Your task to perform on an android device: open app "Truecaller" (install if not already installed) and go to login screen Image 0: 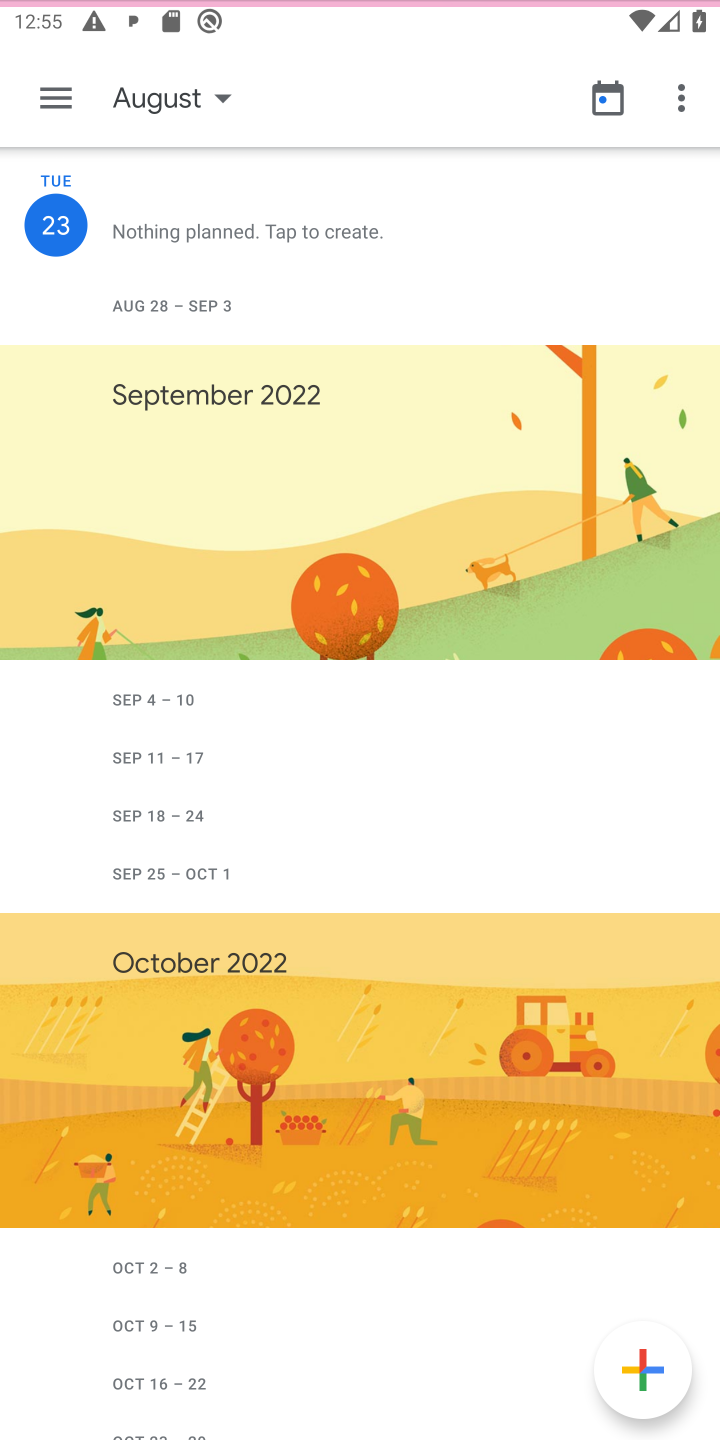
Step 0: click (564, 94)
Your task to perform on an android device: open app "Truecaller" (install if not already installed) and go to login screen Image 1: 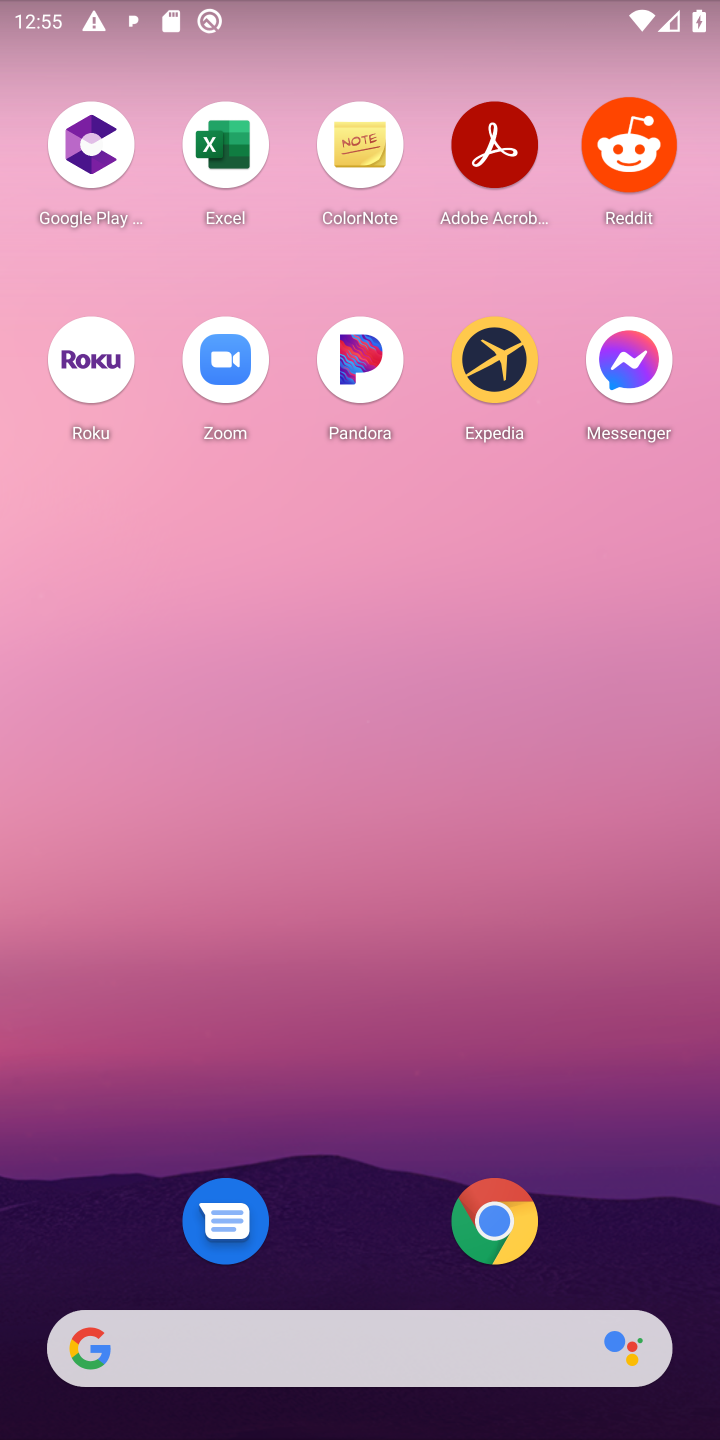
Step 1: drag from (452, 1225) to (494, 61)
Your task to perform on an android device: open app "Truecaller" (install if not already installed) and go to login screen Image 2: 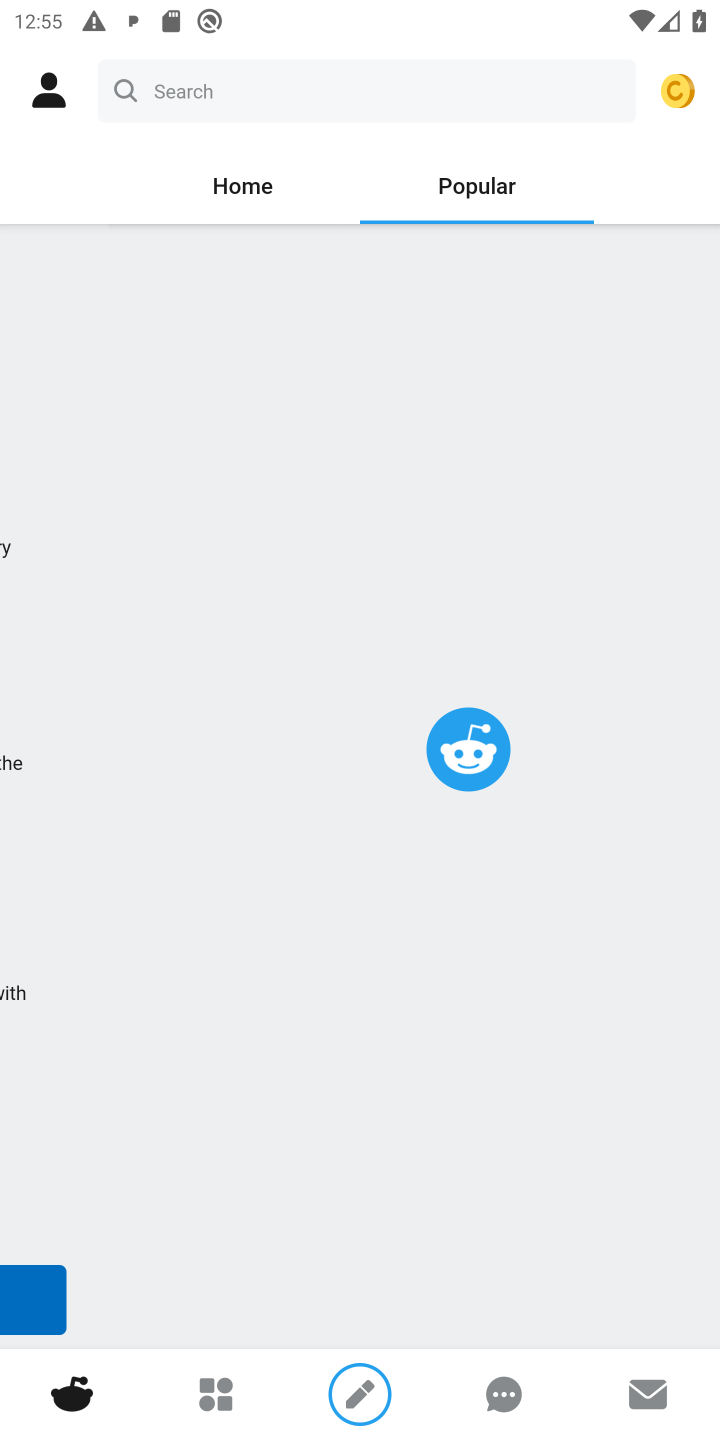
Step 2: press back button
Your task to perform on an android device: open app "Truecaller" (install if not already installed) and go to login screen Image 3: 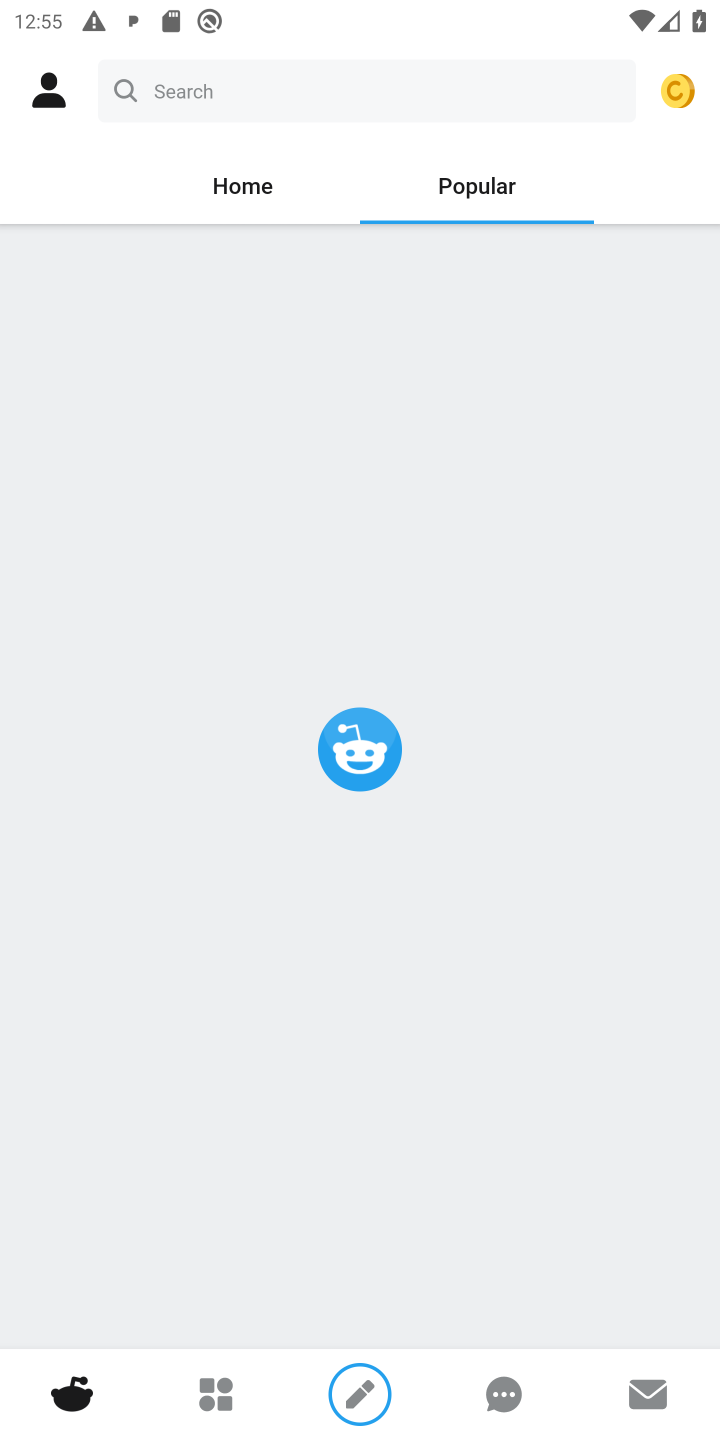
Step 3: press back button
Your task to perform on an android device: open app "Truecaller" (install if not already installed) and go to login screen Image 4: 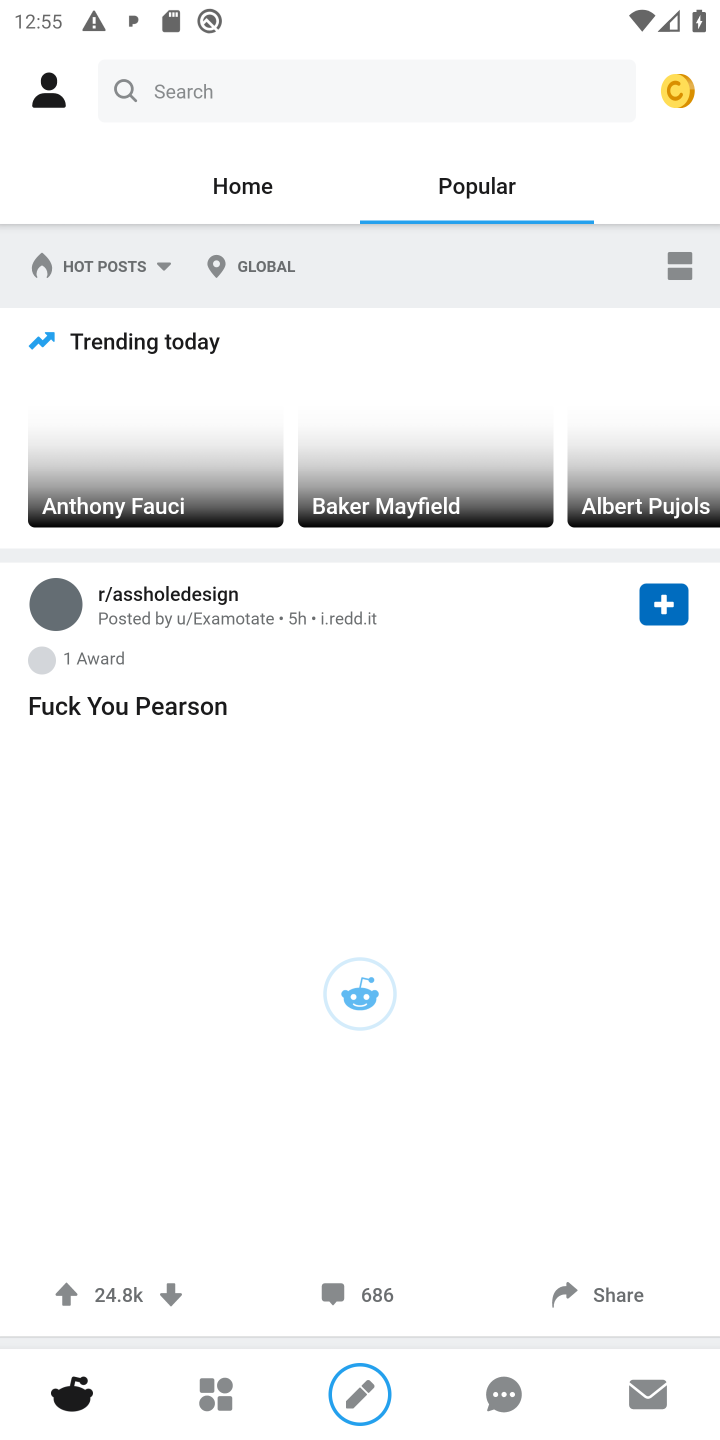
Step 4: press back button
Your task to perform on an android device: open app "Truecaller" (install if not already installed) and go to login screen Image 5: 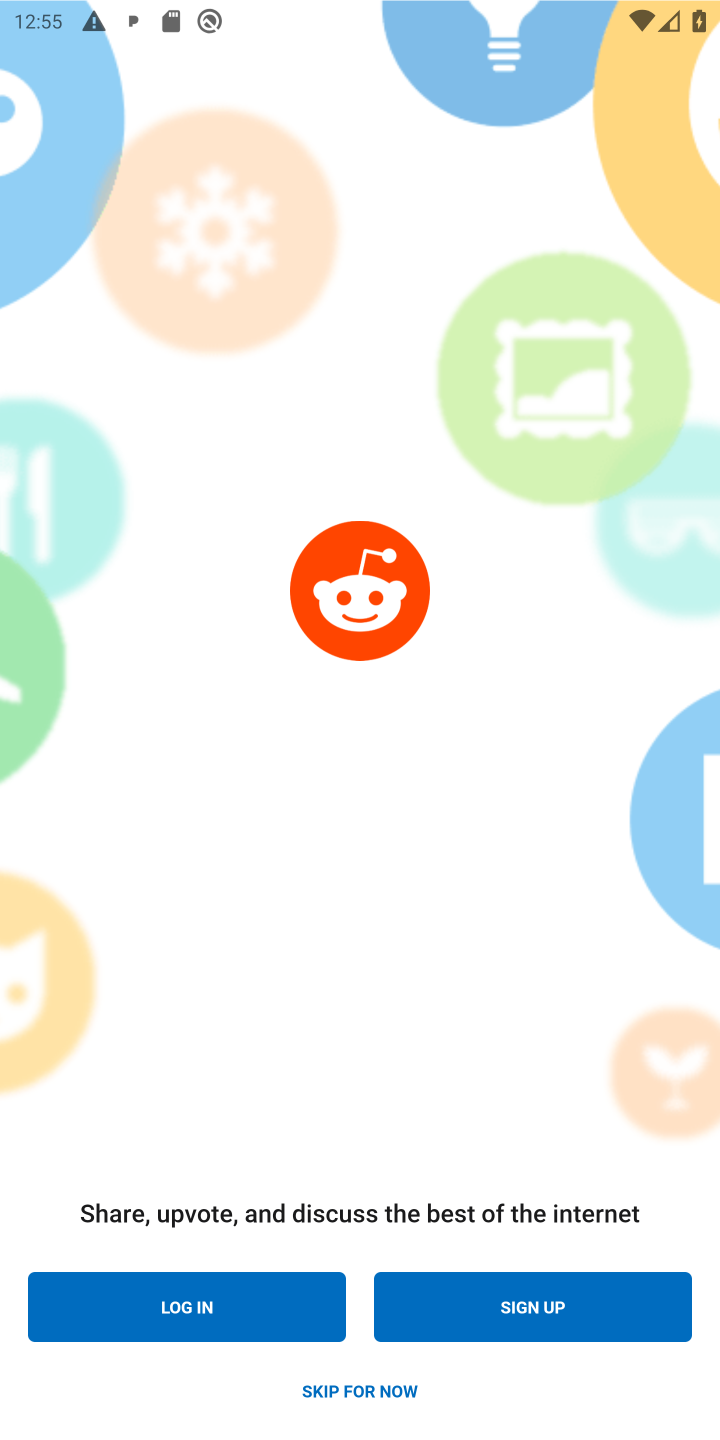
Step 5: press home button
Your task to perform on an android device: open app "Truecaller" (install if not already installed) and go to login screen Image 6: 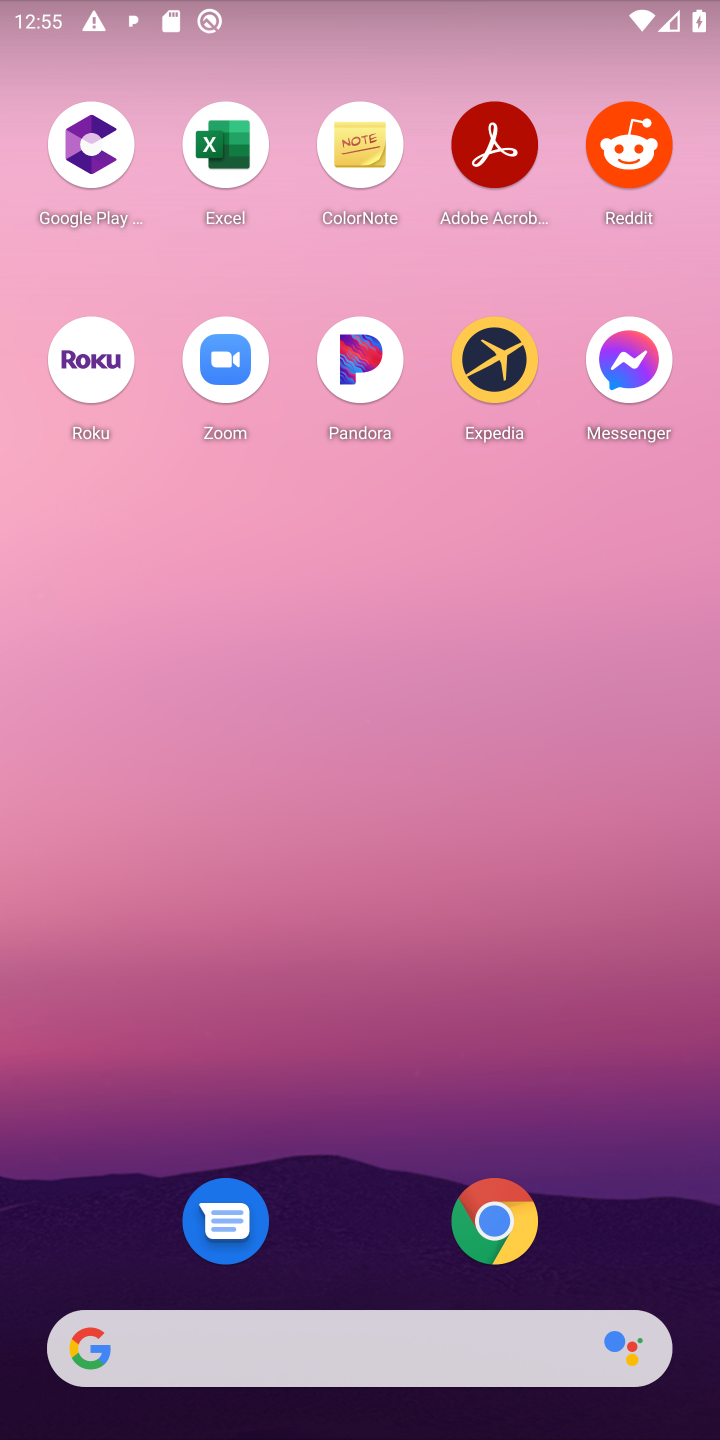
Step 6: drag from (361, 1034) to (528, 39)
Your task to perform on an android device: open app "Truecaller" (install if not already installed) and go to login screen Image 7: 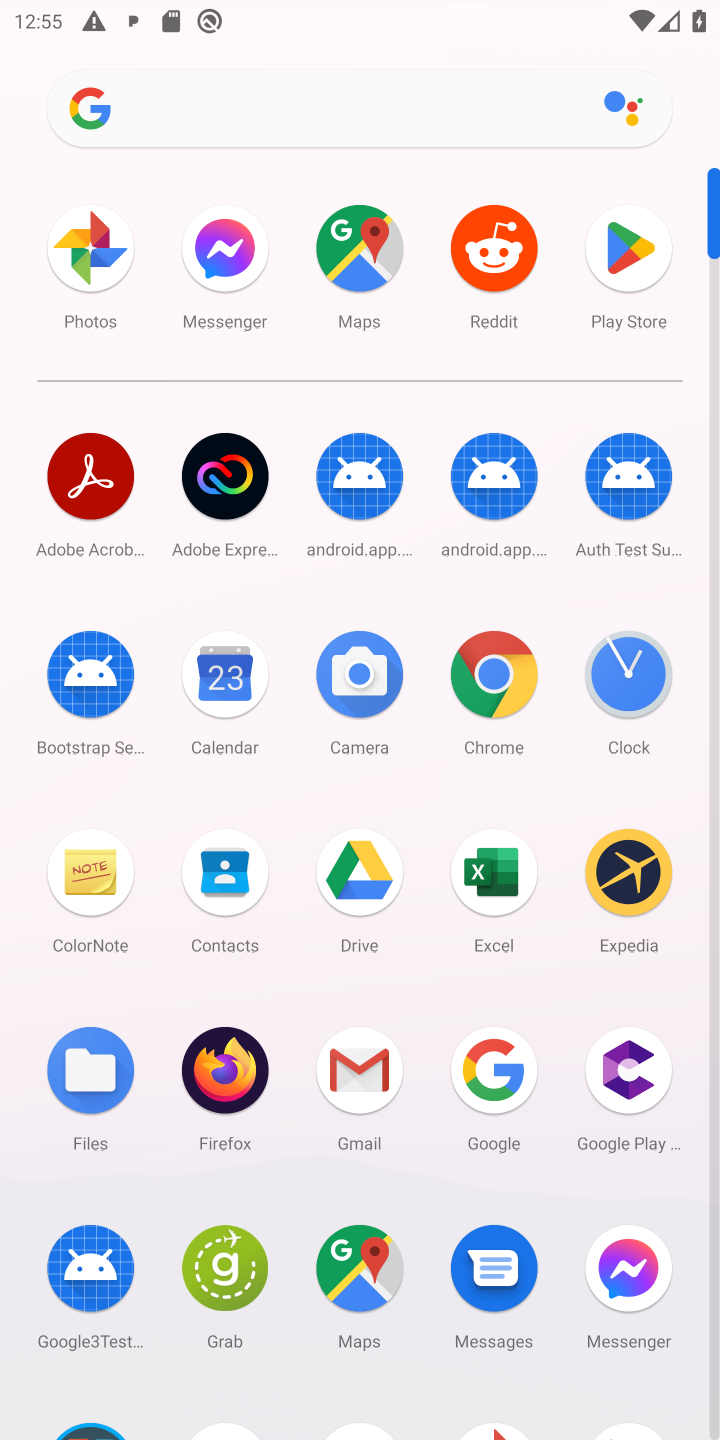
Step 7: click (618, 258)
Your task to perform on an android device: open app "Truecaller" (install if not already installed) and go to login screen Image 8: 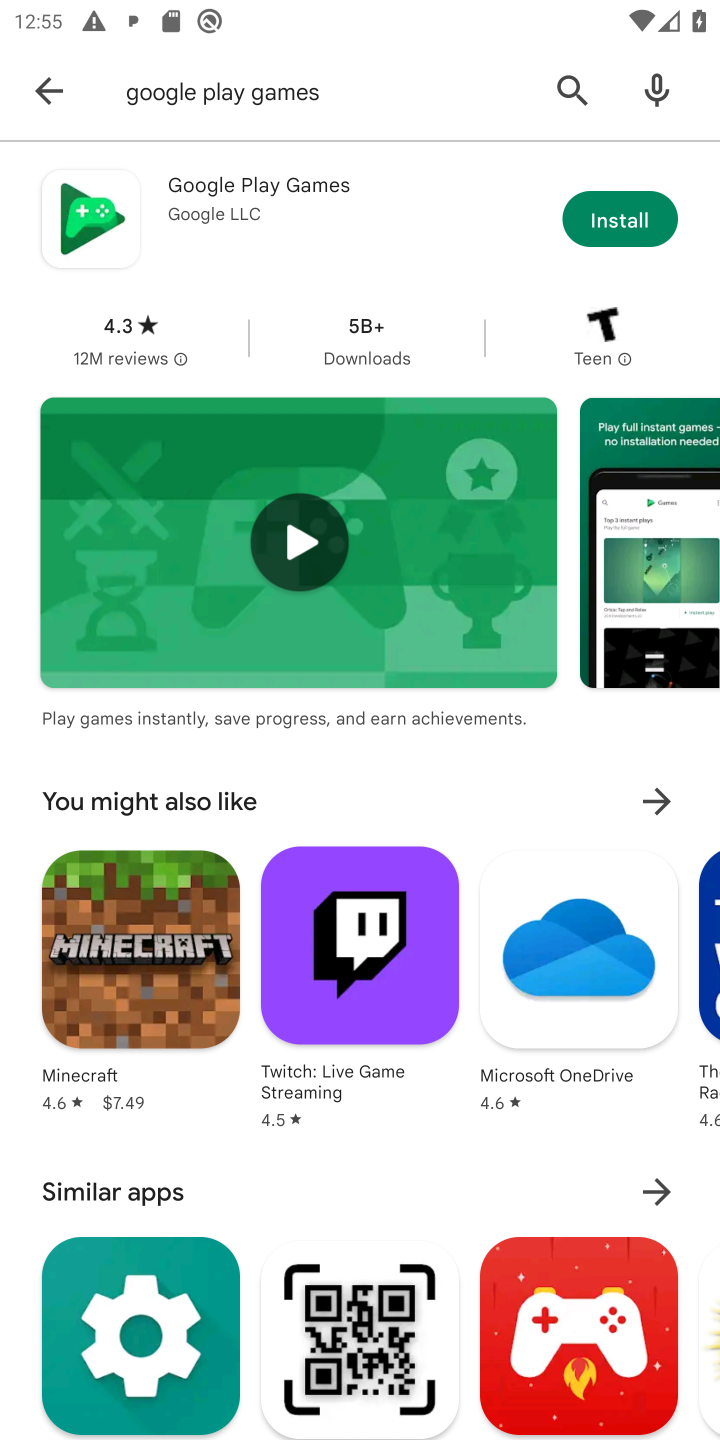
Step 8: click (579, 66)
Your task to perform on an android device: open app "Truecaller" (install if not already installed) and go to login screen Image 9: 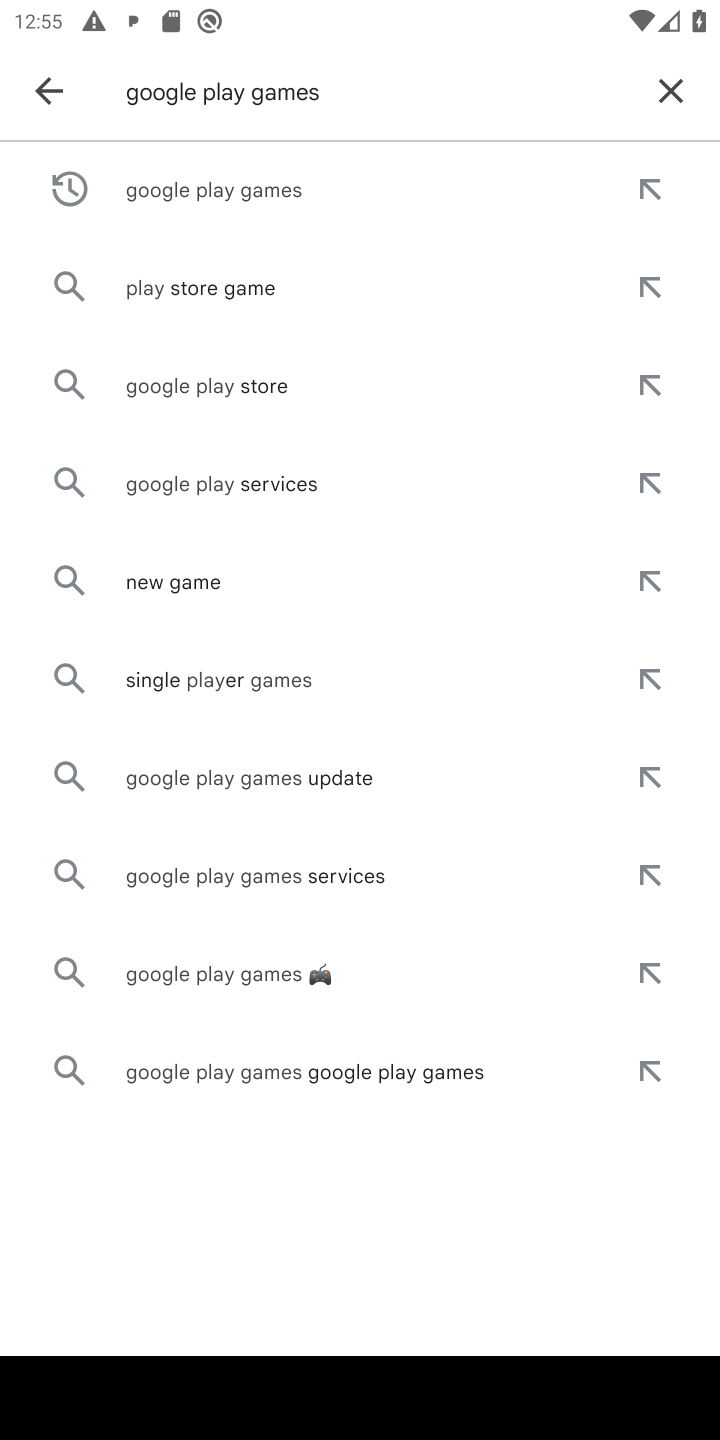
Step 9: click (671, 99)
Your task to perform on an android device: open app "Truecaller" (install if not already installed) and go to login screen Image 10: 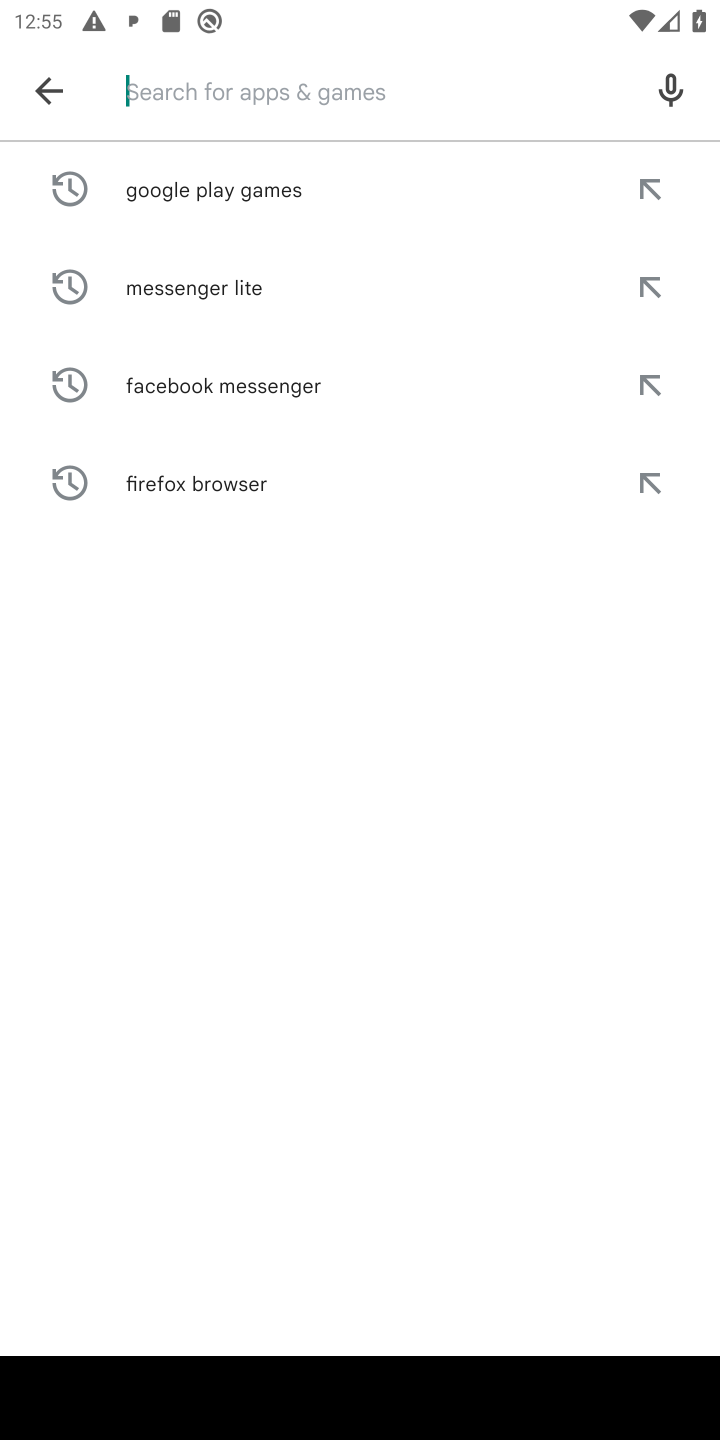
Step 10: click (185, 79)
Your task to perform on an android device: open app "Truecaller" (install if not already installed) and go to login screen Image 11: 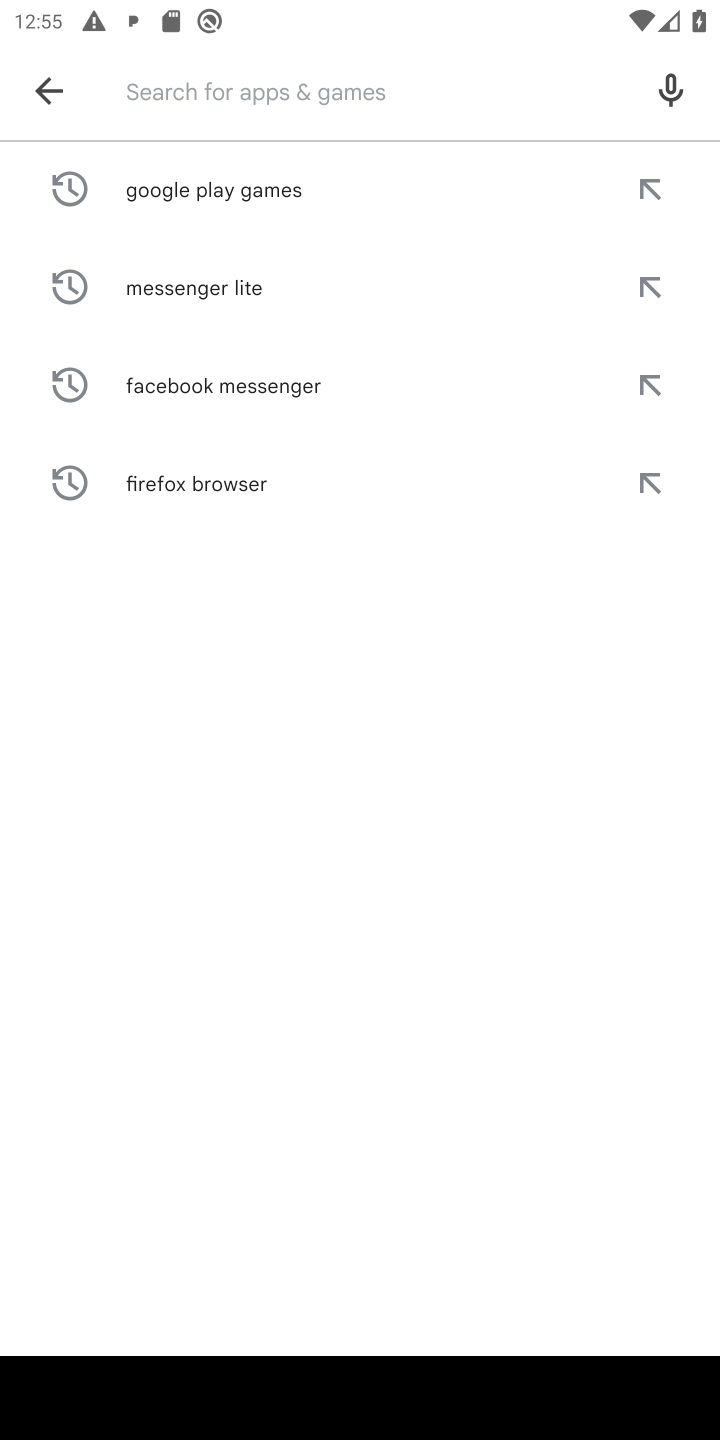
Step 11: type "Truecaller"
Your task to perform on an android device: open app "Truecaller" (install if not already installed) and go to login screen Image 12: 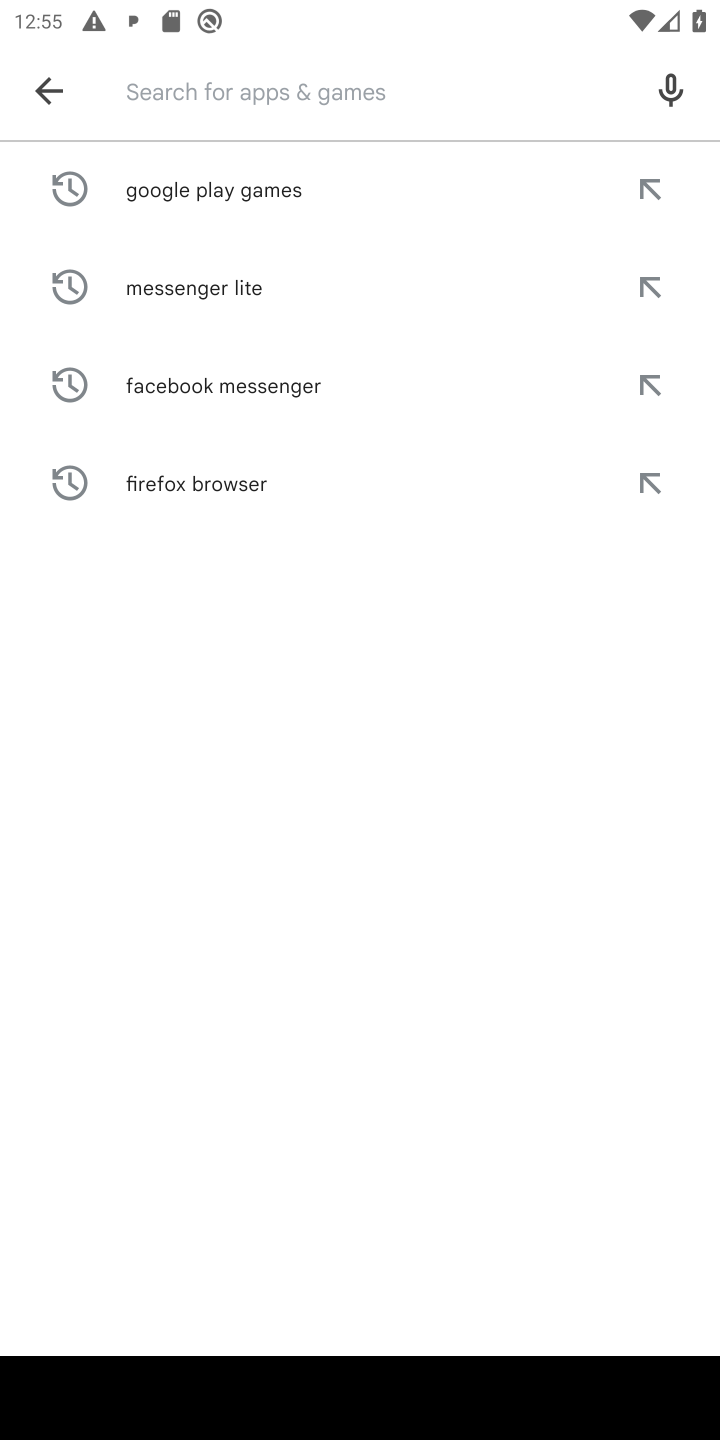
Step 12: click (398, 922)
Your task to perform on an android device: open app "Truecaller" (install if not already installed) and go to login screen Image 13: 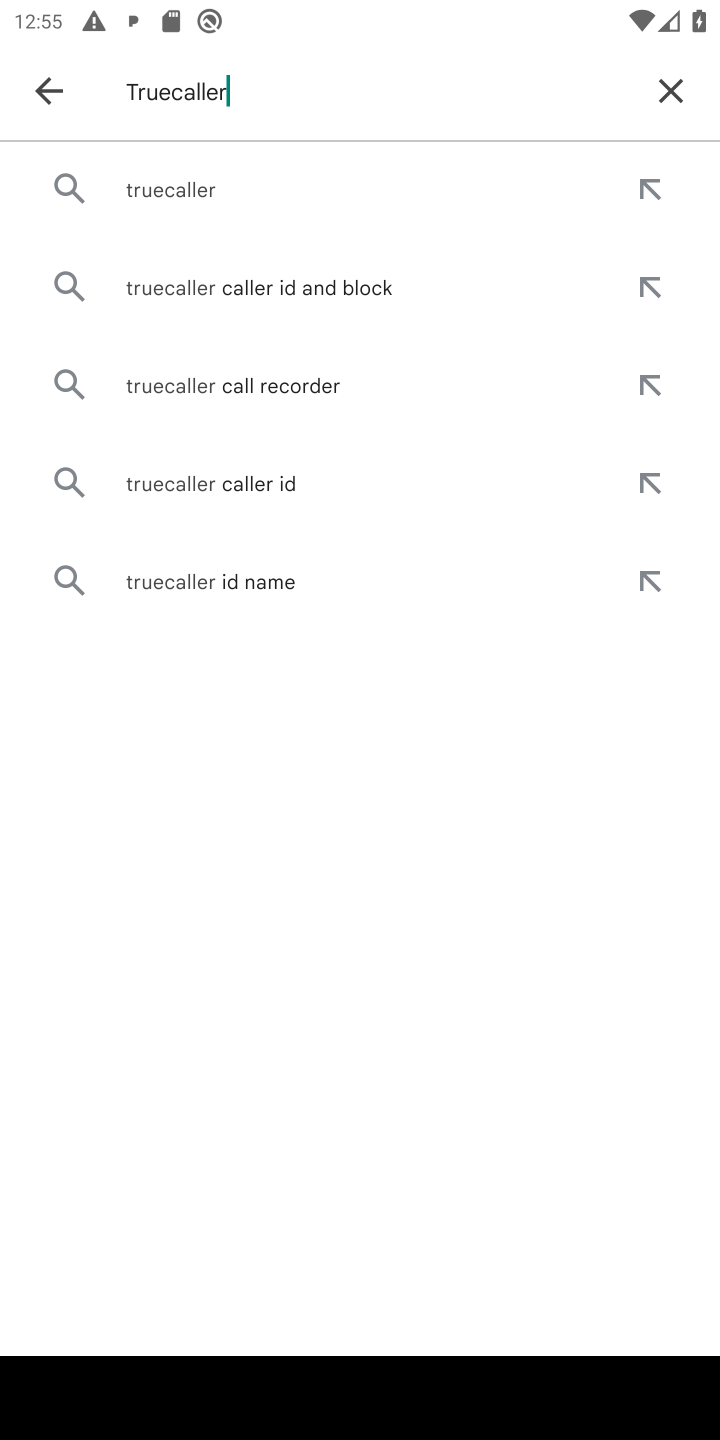
Step 13: click (214, 205)
Your task to perform on an android device: open app "Truecaller" (install if not already installed) and go to login screen Image 14: 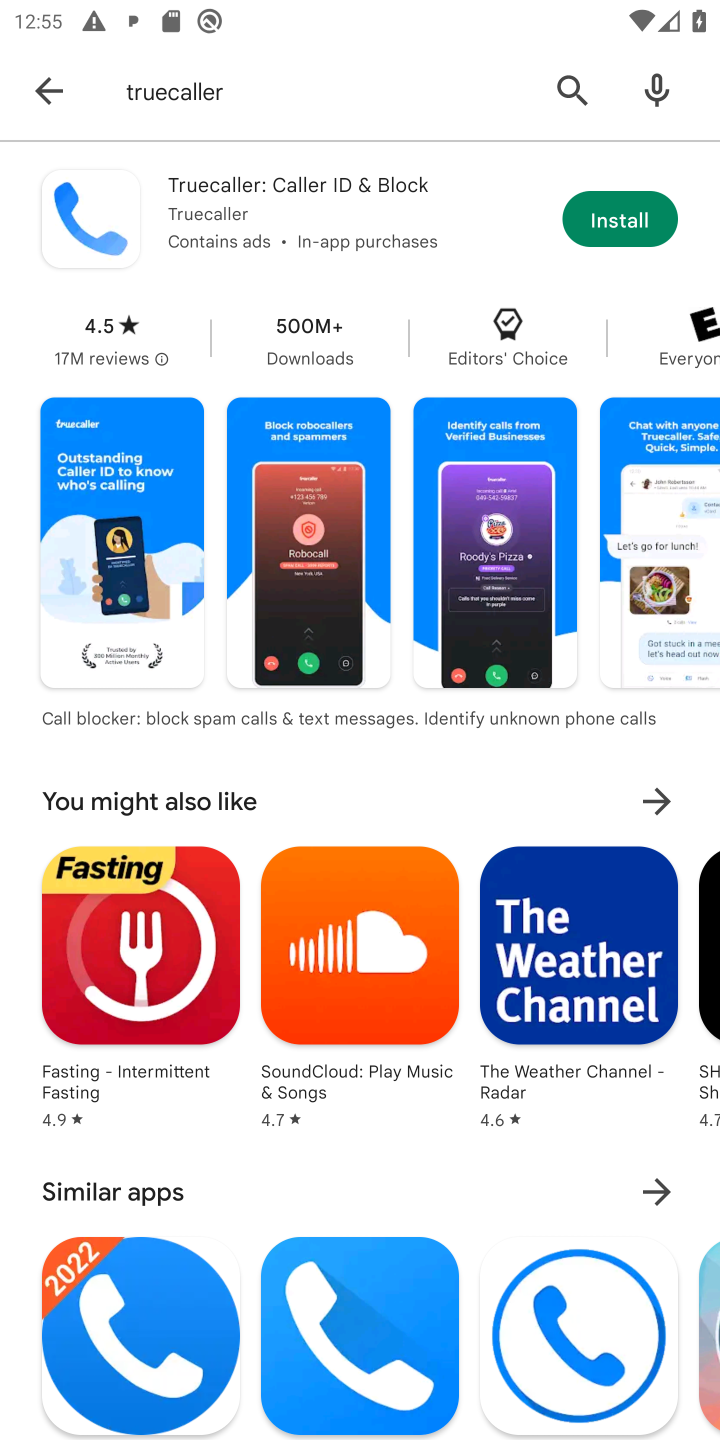
Step 14: click (600, 231)
Your task to perform on an android device: open app "Truecaller" (install if not already installed) and go to login screen Image 15: 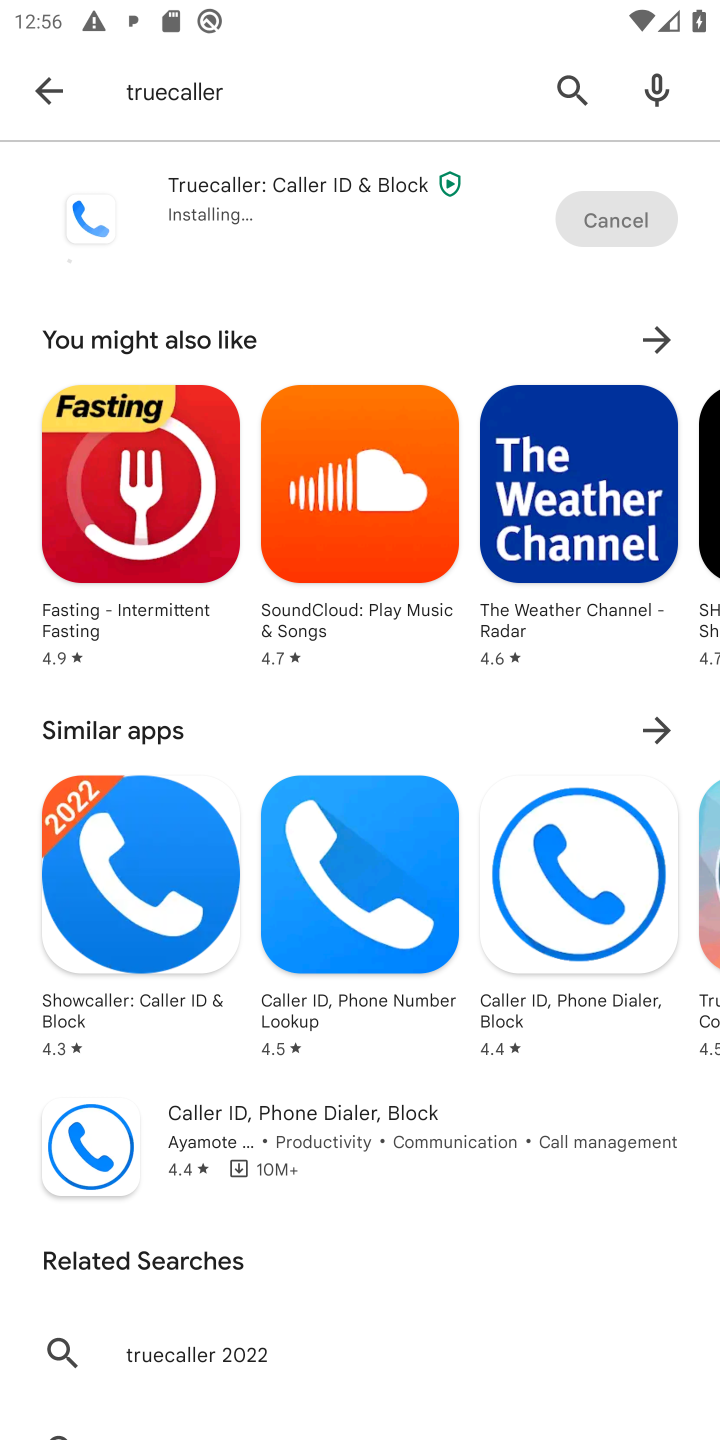
Step 15: press back button
Your task to perform on an android device: open app "Truecaller" (install if not already installed) and go to login screen Image 16: 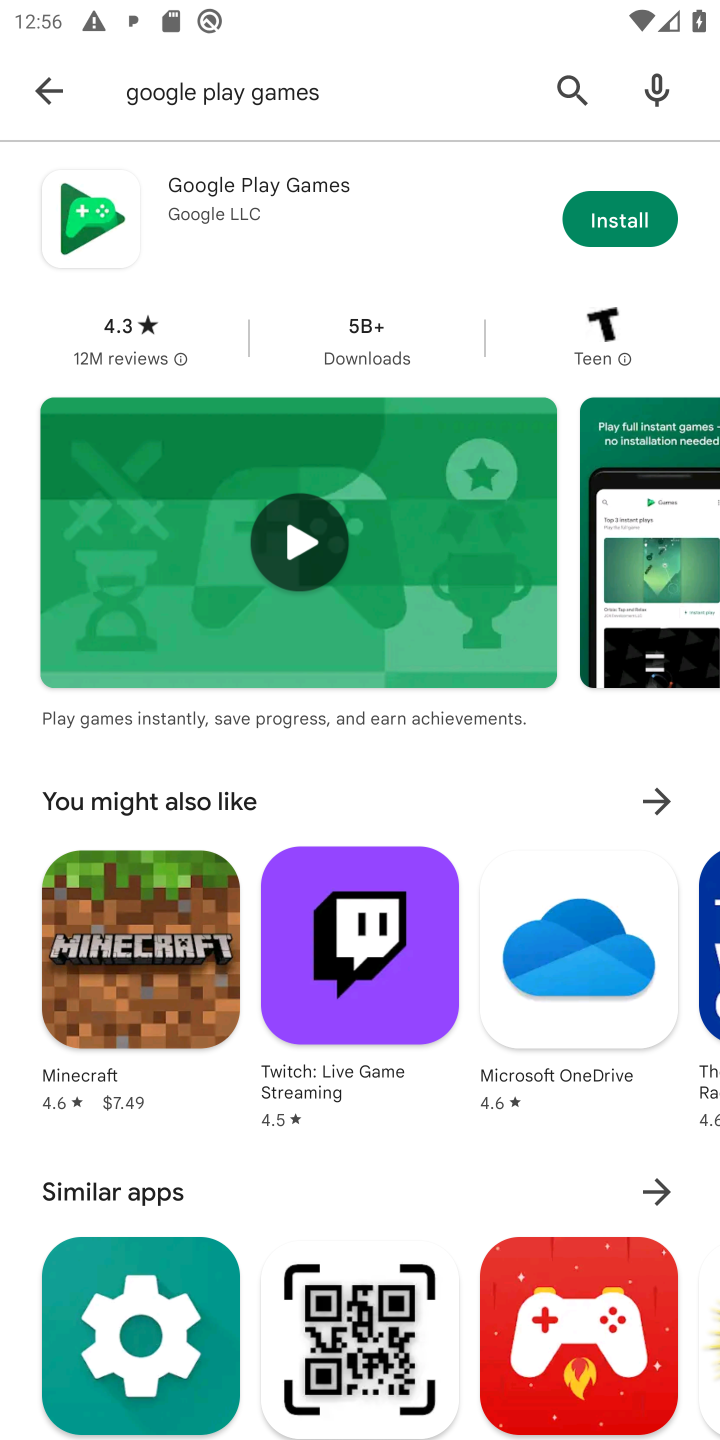
Step 16: click (545, 88)
Your task to perform on an android device: open app "Truecaller" (install if not already installed) and go to login screen Image 17: 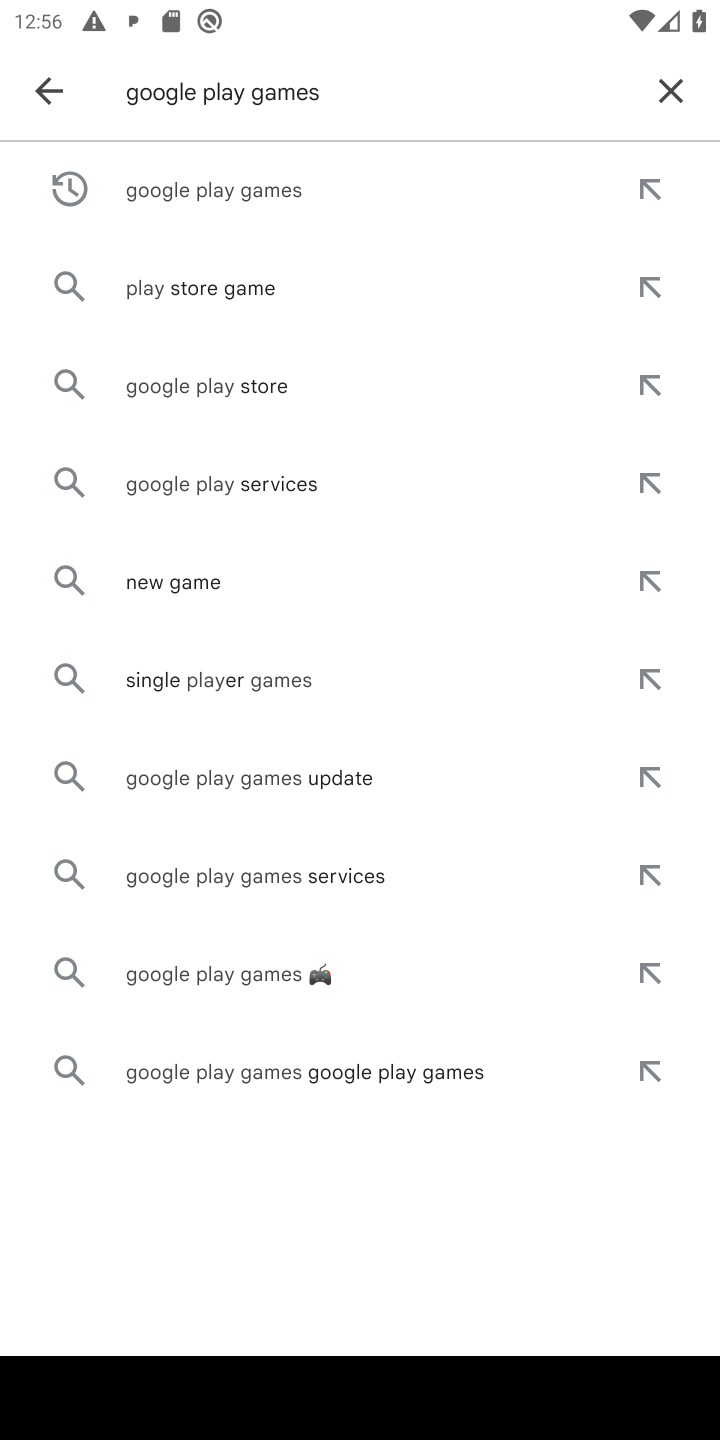
Step 17: click (669, 82)
Your task to perform on an android device: open app "Truecaller" (install if not already installed) and go to login screen Image 18: 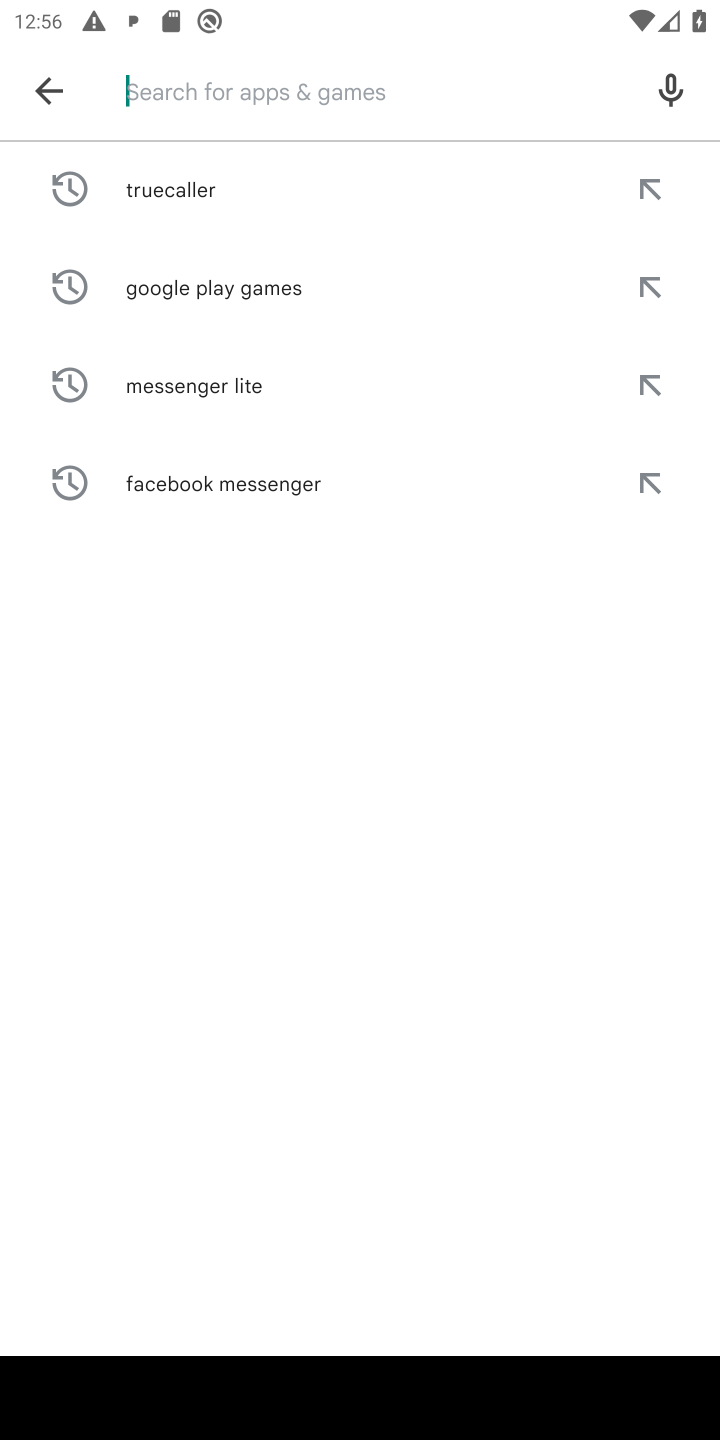
Step 18: click (153, 191)
Your task to perform on an android device: open app "Truecaller" (install if not already installed) and go to login screen Image 19: 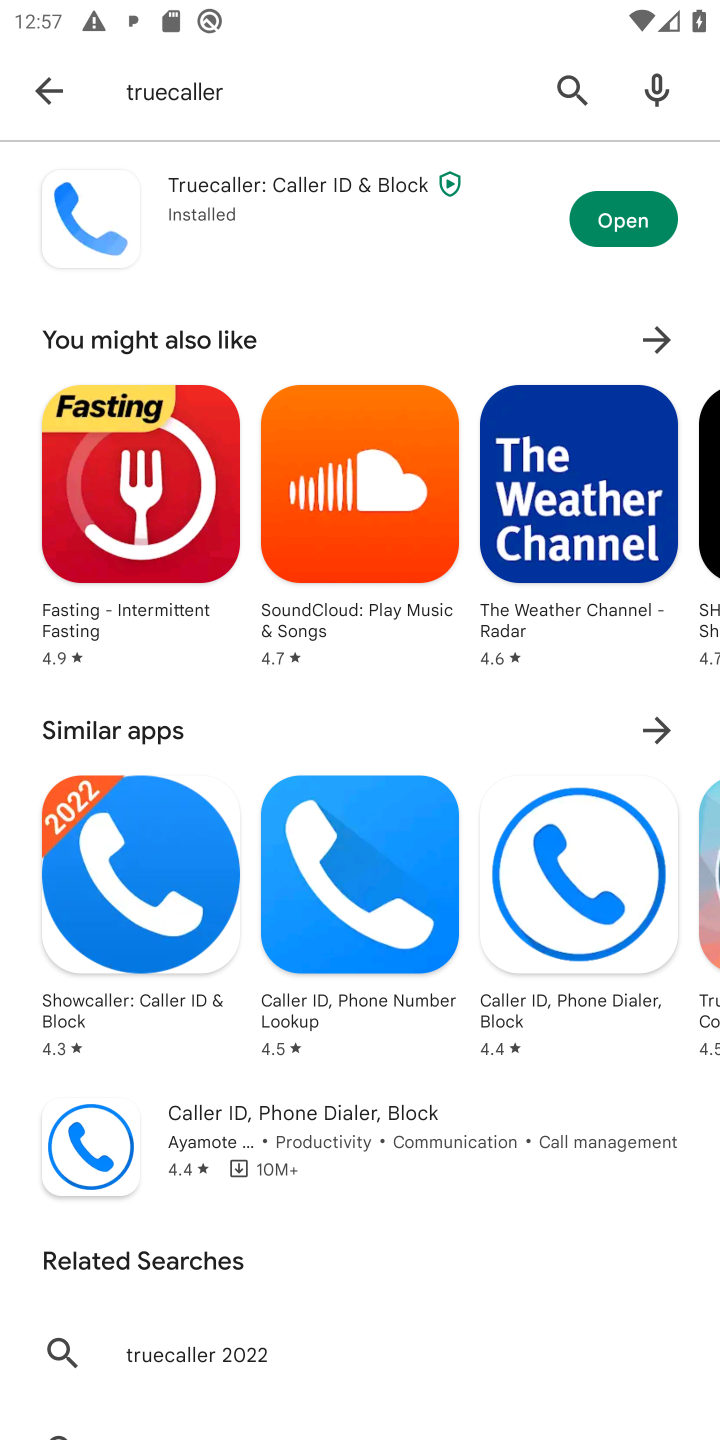
Step 19: click (628, 213)
Your task to perform on an android device: open app "Truecaller" (install if not already installed) and go to login screen Image 20: 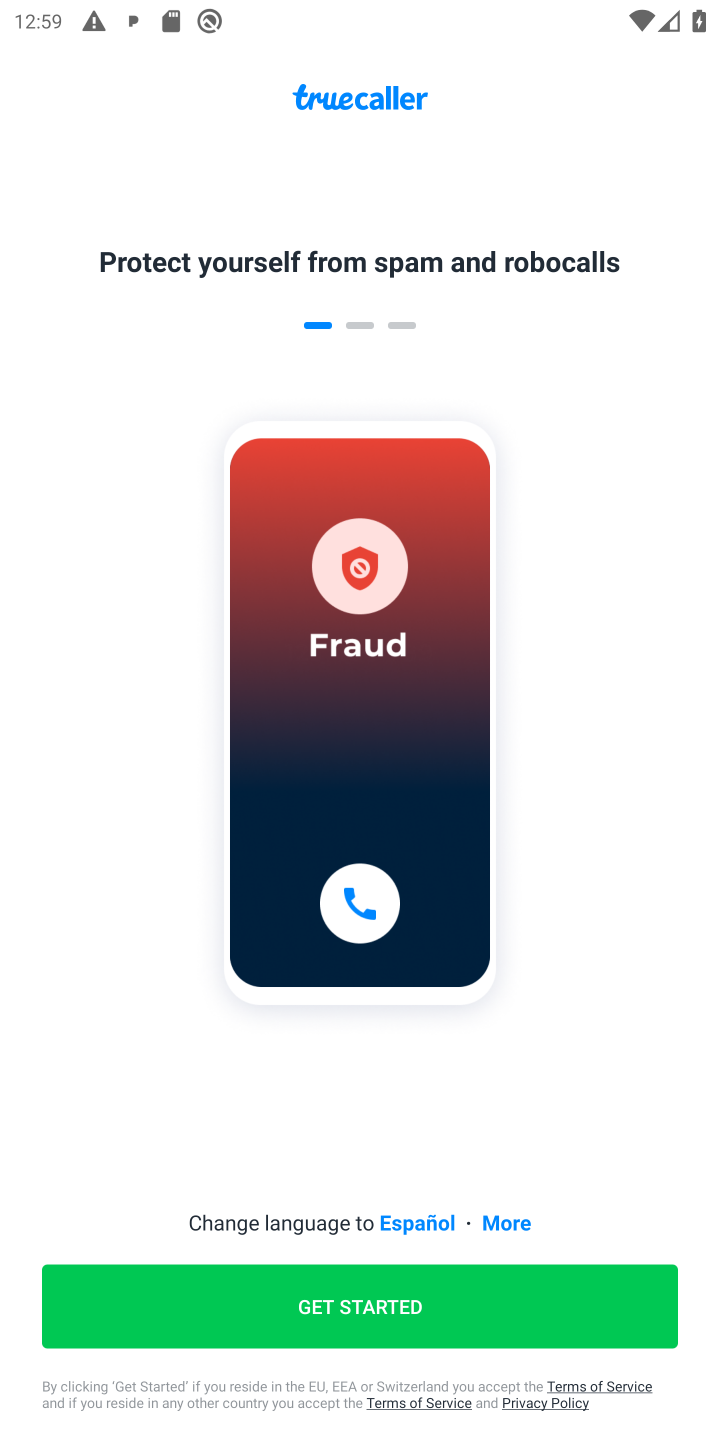
Step 20: click (367, 1305)
Your task to perform on an android device: open app "Truecaller" (install if not already installed) and go to login screen Image 21: 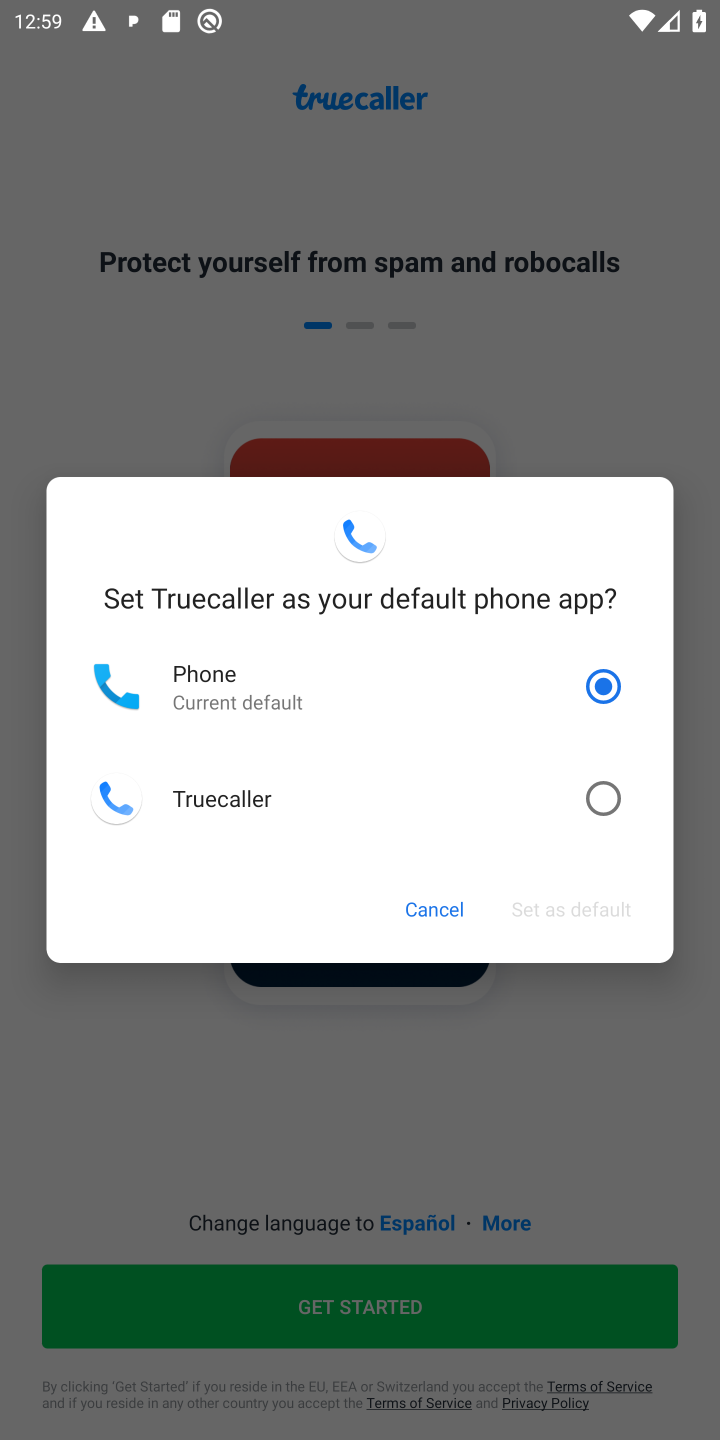
Step 21: click (579, 700)
Your task to perform on an android device: open app "Truecaller" (install if not already installed) and go to login screen Image 22: 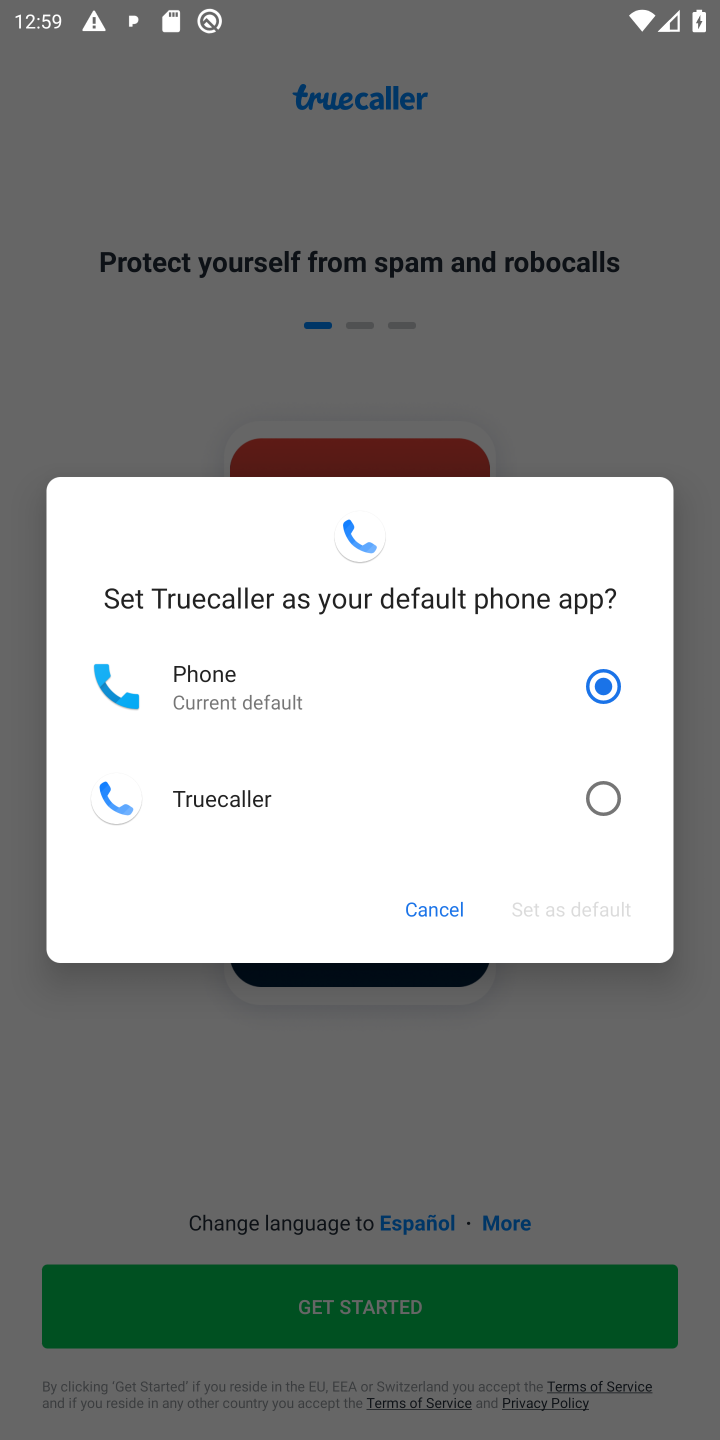
Step 22: click (592, 791)
Your task to perform on an android device: open app "Truecaller" (install if not already installed) and go to login screen Image 23: 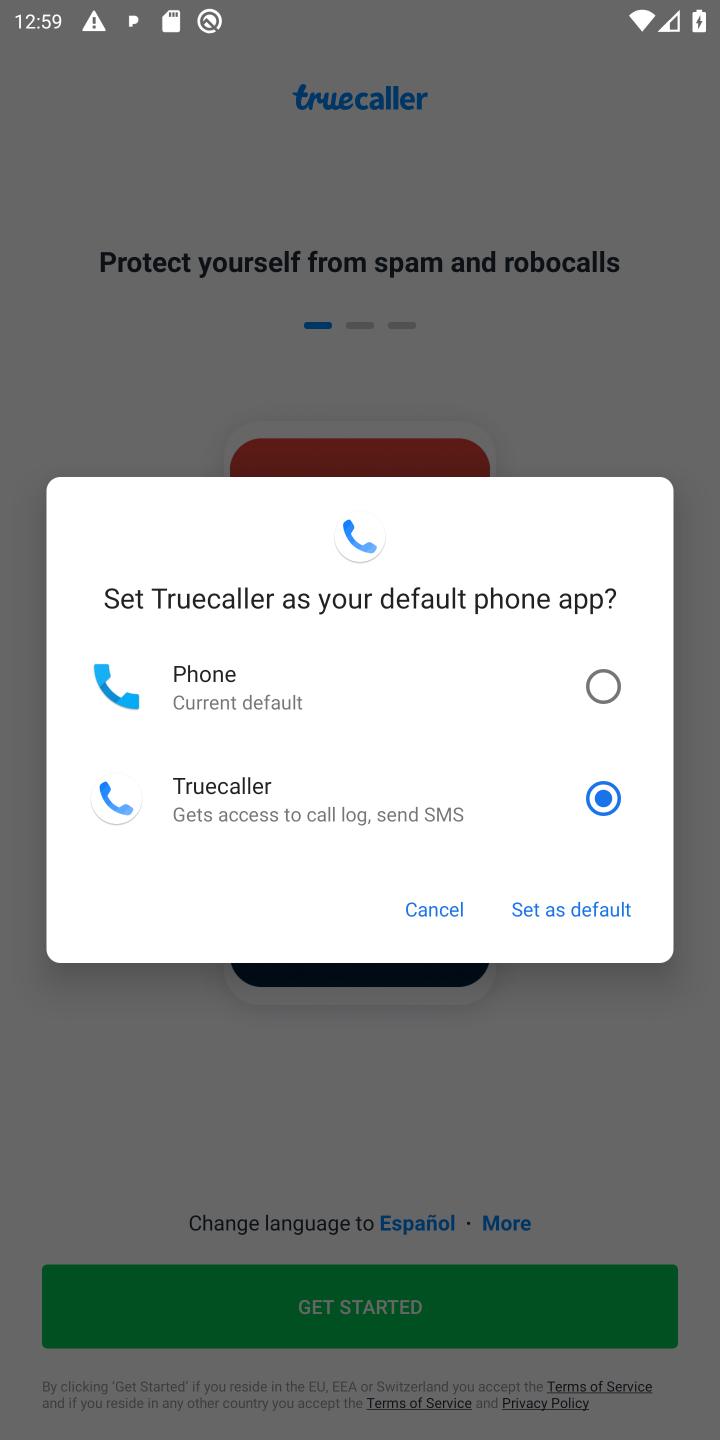
Step 23: click (594, 682)
Your task to perform on an android device: open app "Truecaller" (install if not already installed) and go to login screen Image 24: 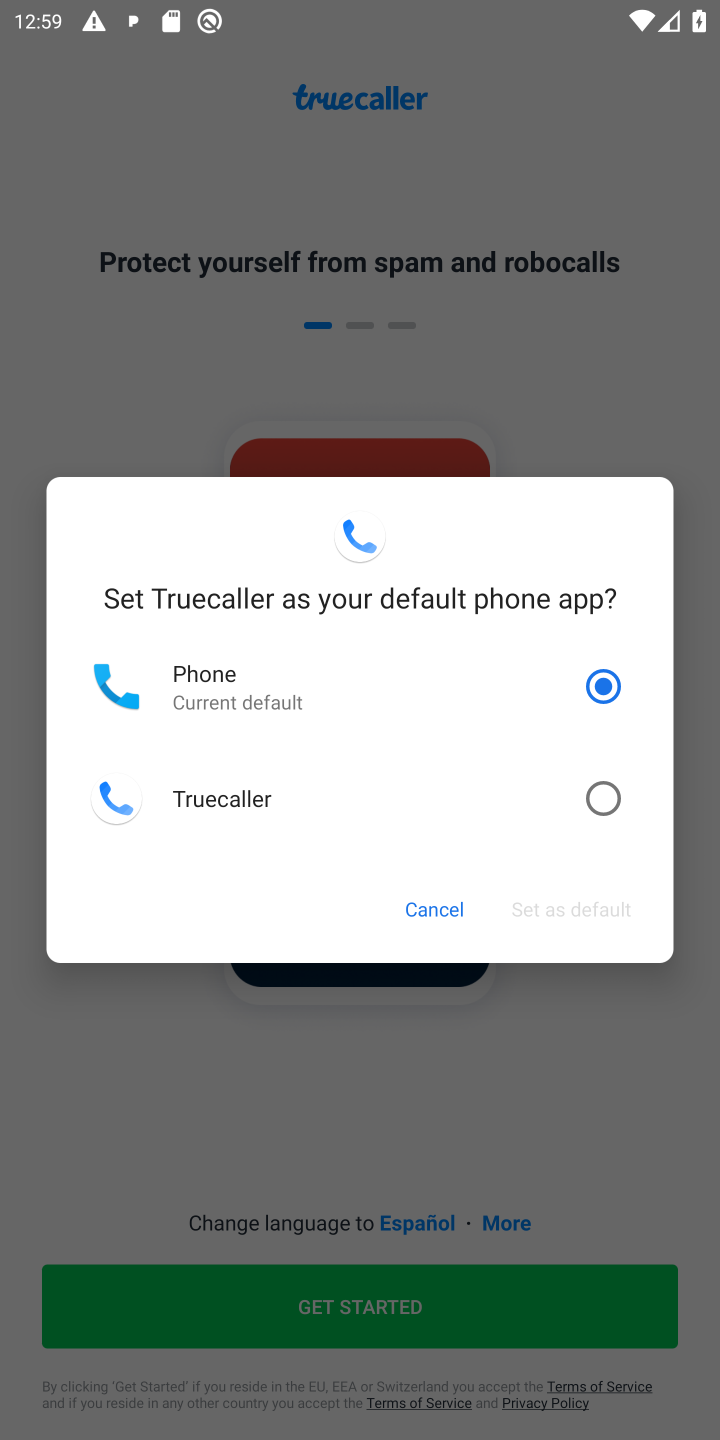
Step 24: click (415, 919)
Your task to perform on an android device: open app "Truecaller" (install if not already installed) and go to login screen Image 25: 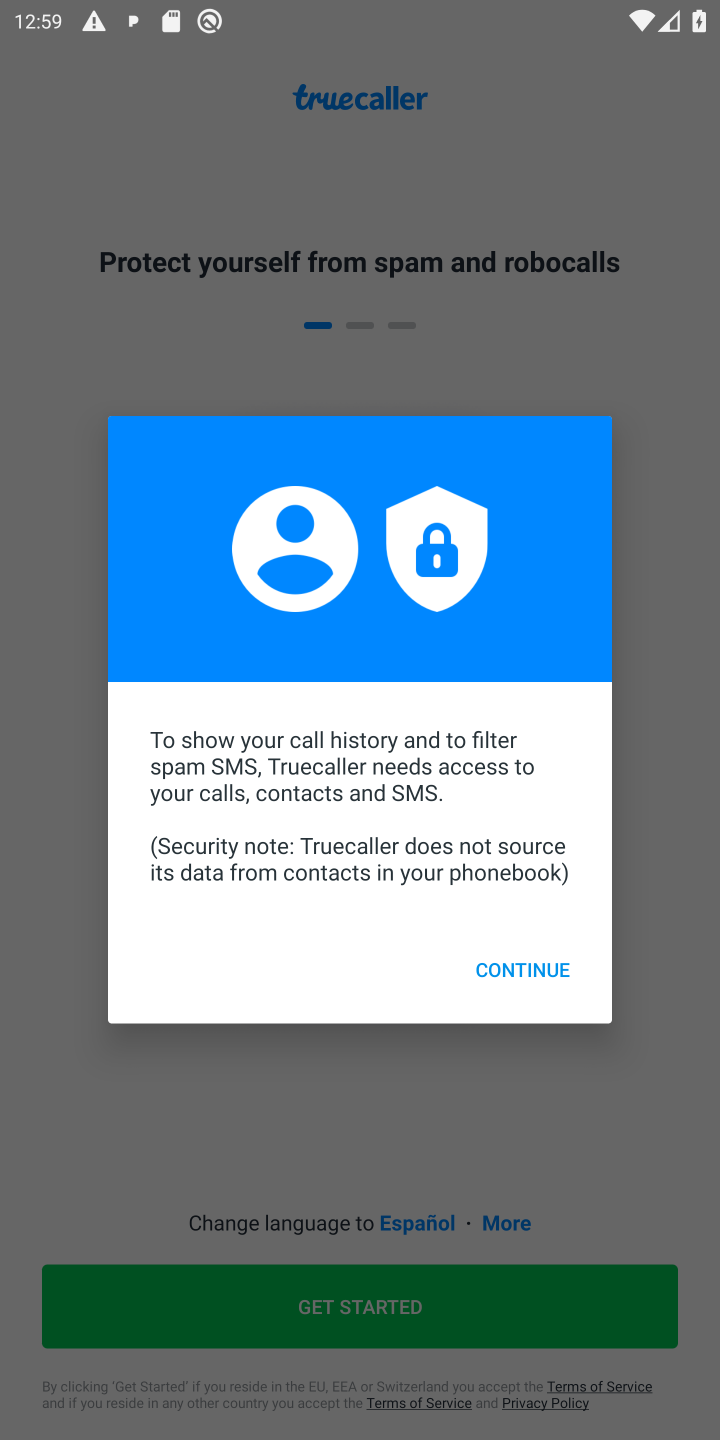
Step 25: click (367, 1281)
Your task to perform on an android device: open app "Truecaller" (install if not already installed) and go to login screen Image 26: 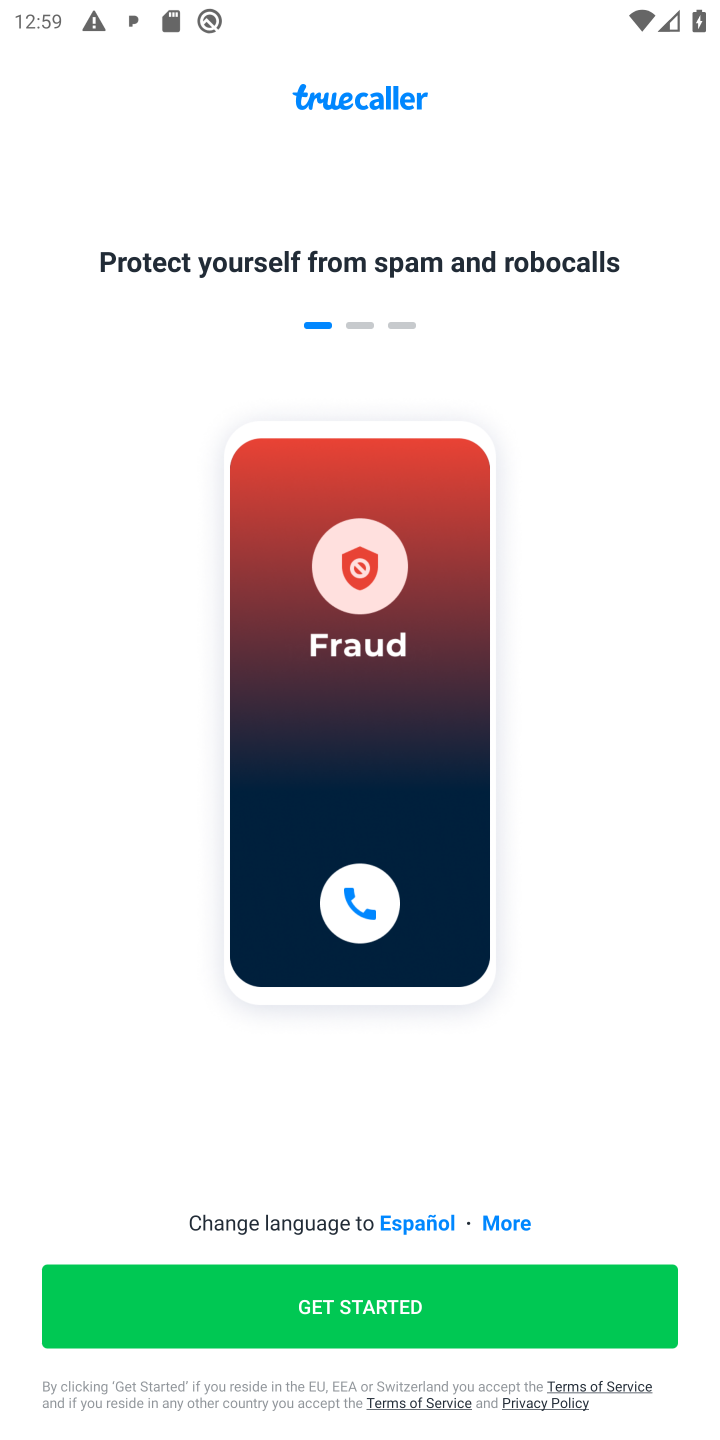
Step 26: click (506, 988)
Your task to perform on an android device: open app "Truecaller" (install if not already installed) and go to login screen Image 27: 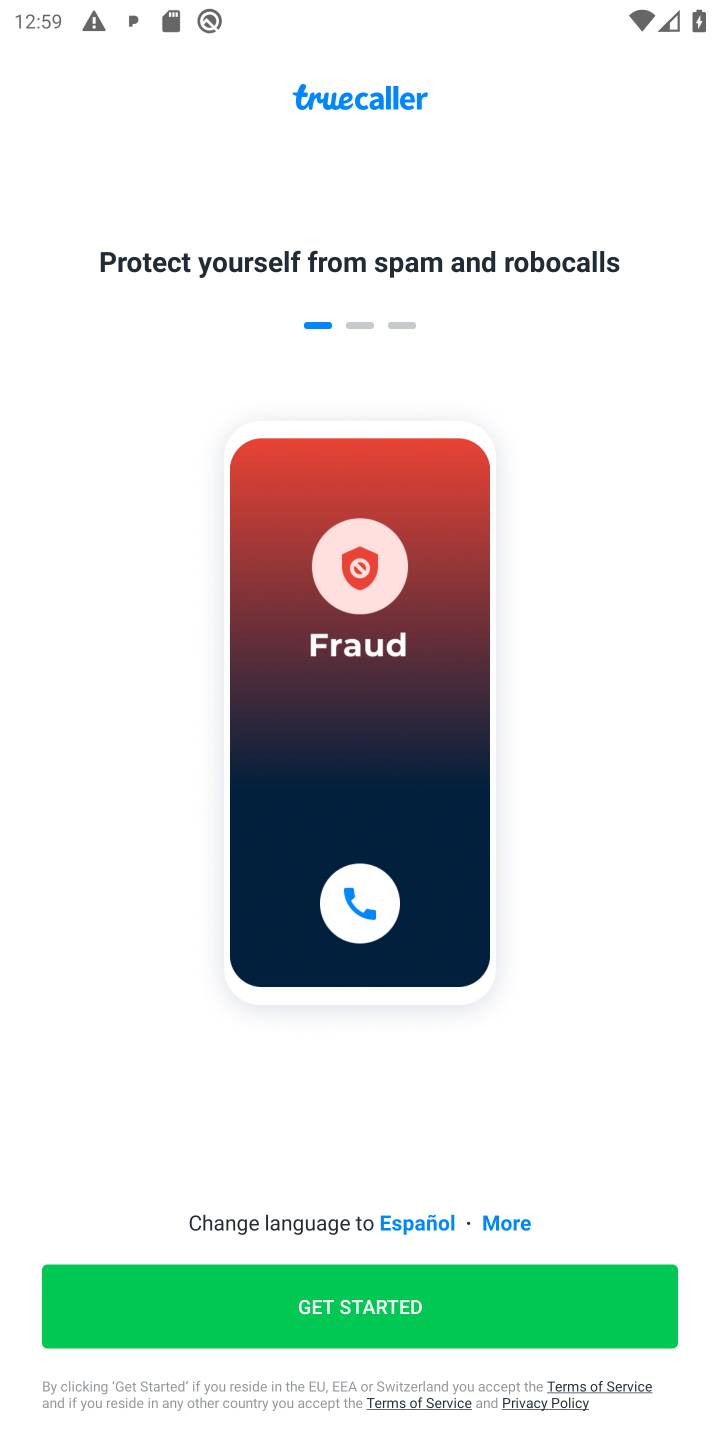
Step 27: task complete